Your task to perform on an android device: Go to eBay Image 0: 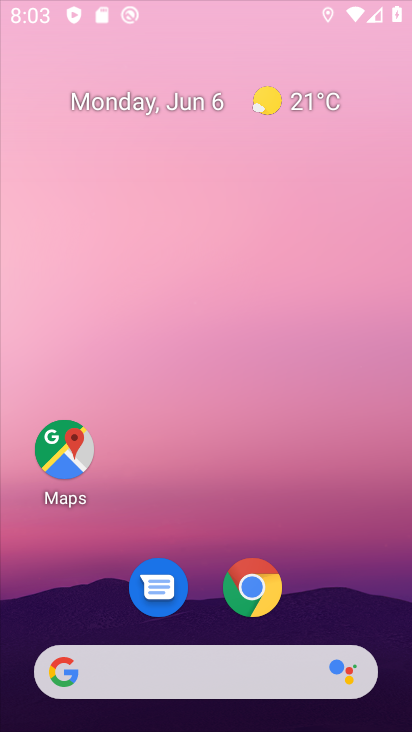
Step 0: press home button
Your task to perform on an android device: Go to eBay Image 1: 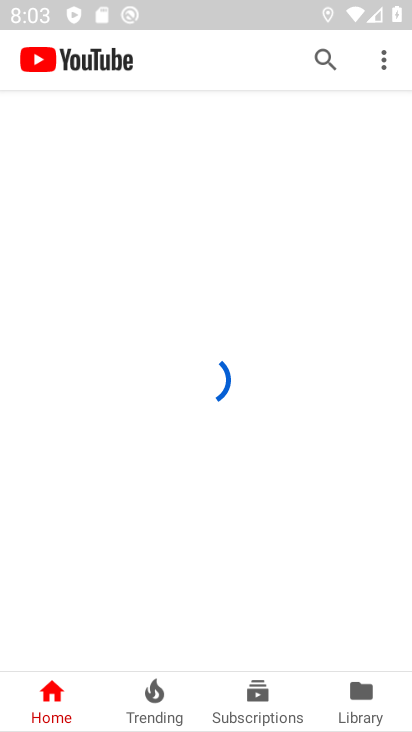
Step 1: click (397, 174)
Your task to perform on an android device: Go to eBay Image 2: 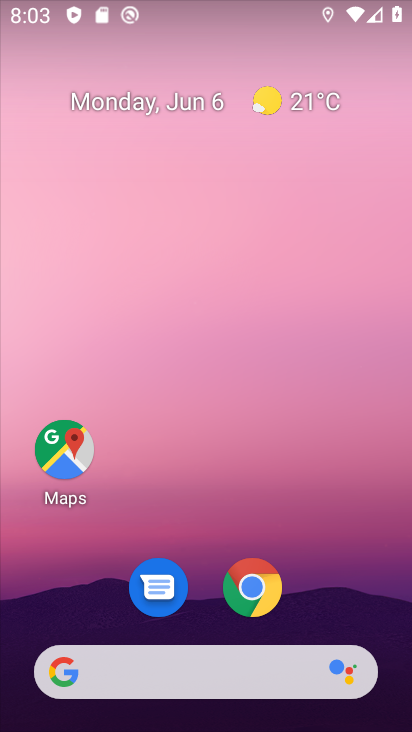
Step 2: drag from (330, 460) to (310, 125)
Your task to perform on an android device: Go to eBay Image 3: 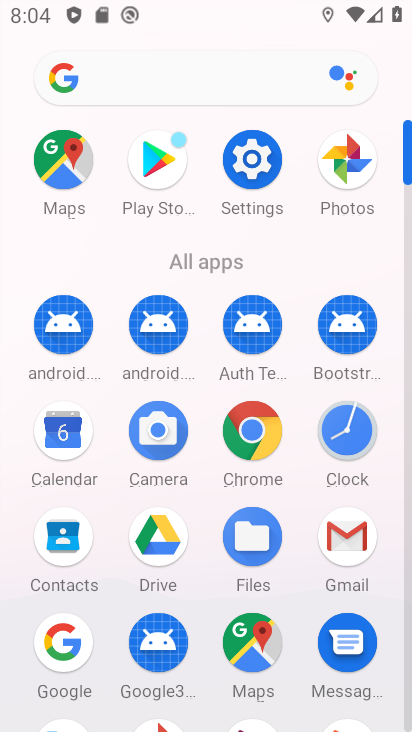
Step 3: click (265, 432)
Your task to perform on an android device: Go to eBay Image 4: 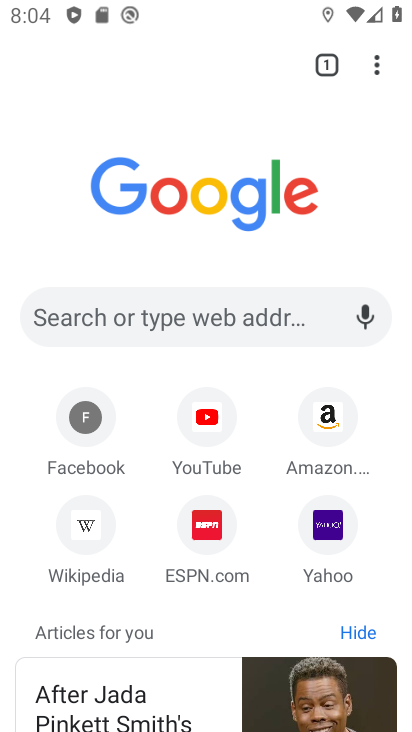
Step 4: click (259, 315)
Your task to perform on an android device: Go to eBay Image 5: 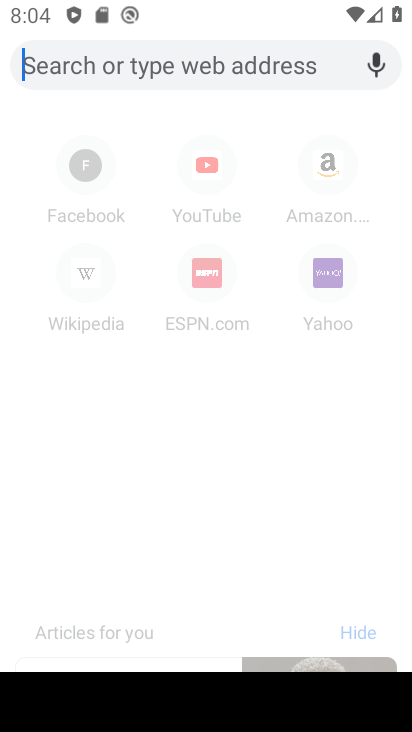
Step 5: type "ebay"
Your task to perform on an android device: Go to eBay Image 6: 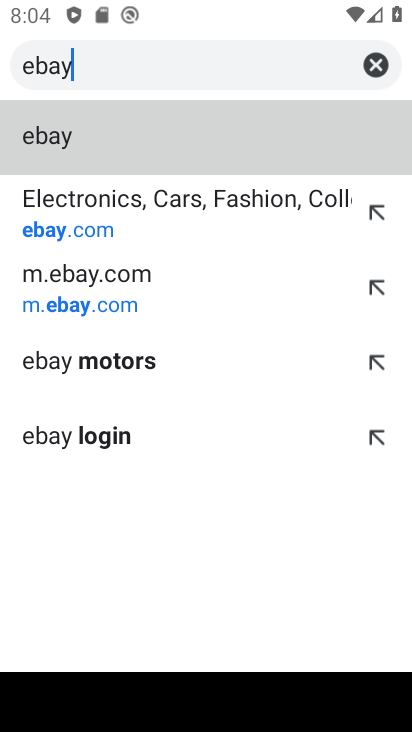
Step 6: click (55, 237)
Your task to perform on an android device: Go to eBay Image 7: 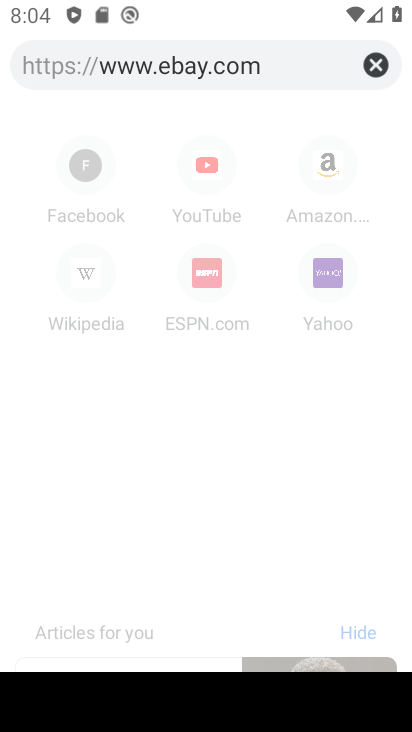
Step 7: click (56, 236)
Your task to perform on an android device: Go to eBay Image 8: 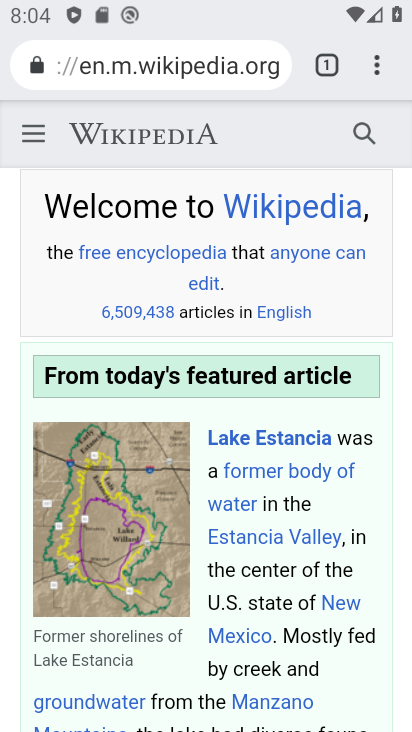
Step 8: click (163, 60)
Your task to perform on an android device: Go to eBay Image 9: 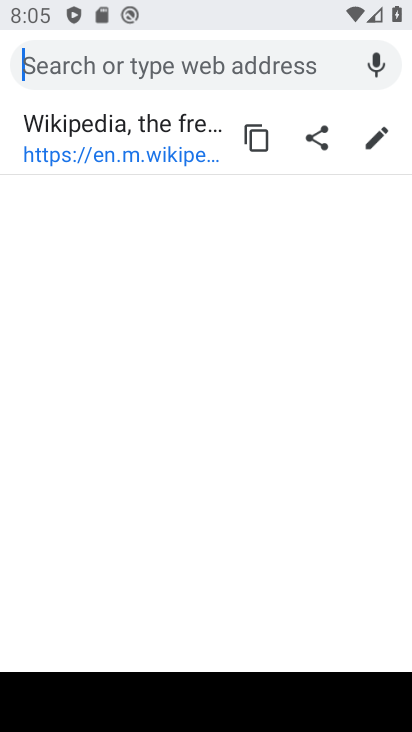
Step 9: type "ebay"
Your task to perform on an android device: Go to eBay Image 10: 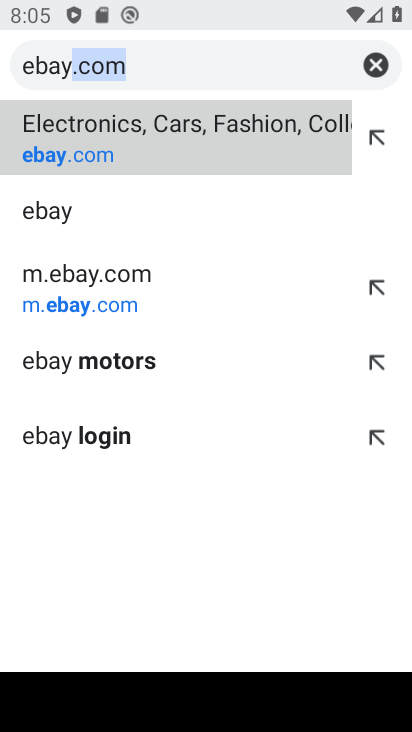
Step 10: click (100, 153)
Your task to perform on an android device: Go to eBay Image 11: 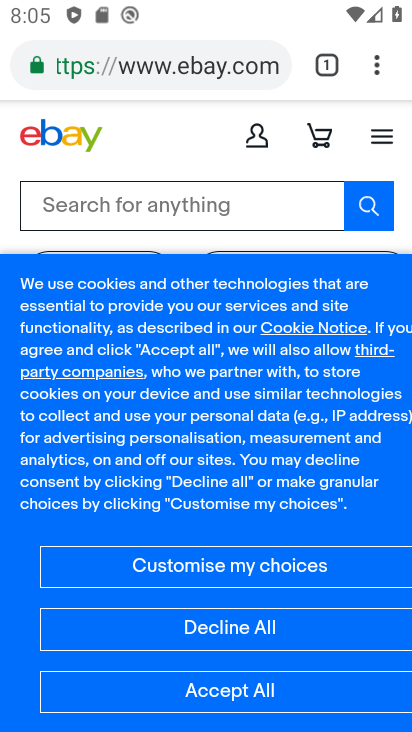
Step 11: task complete